Your task to perform on an android device: Open display settings Image 0: 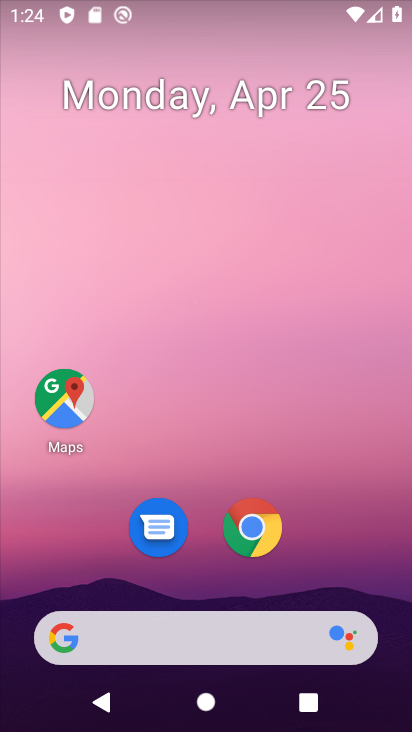
Step 0: drag from (379, 589) to (278, 128)
Your task to perform on an android device: Open display settings Image 1: 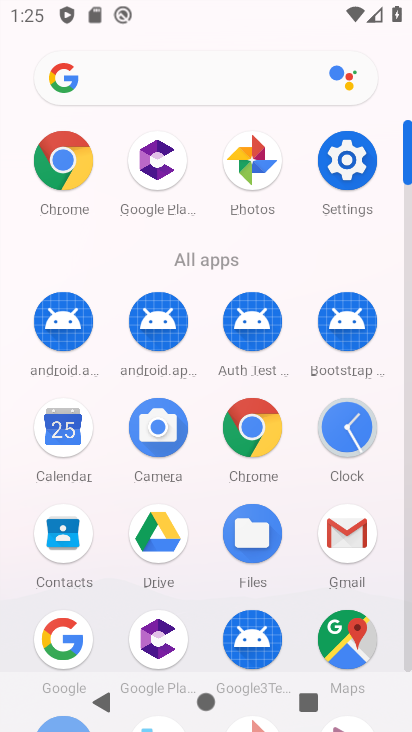
Step 1: click (335, 172)
Your task to perform on an android device: Open display settings Image 2: 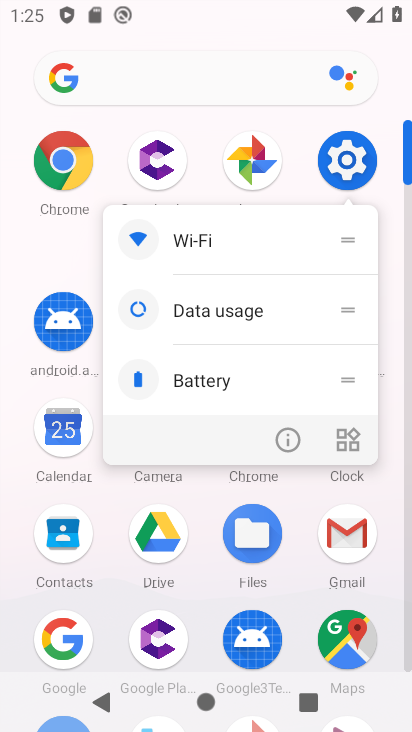
Step 2: click (335, 172)
Your task to perform on an android device: Open display settings Image 3: 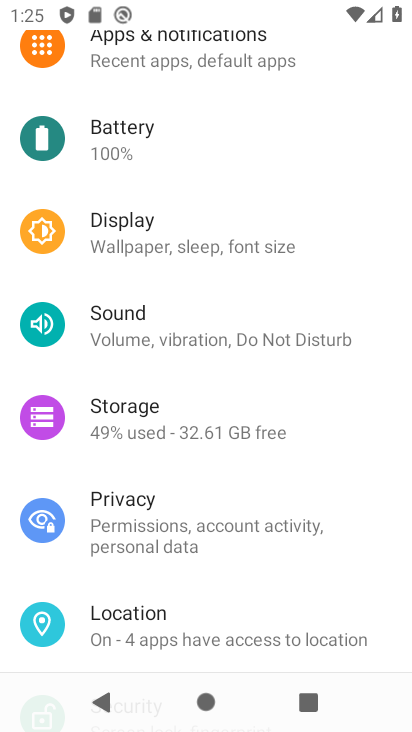
Step 3: click (145, 245)
Your task to perform on an android device: Open display settings Image 4: 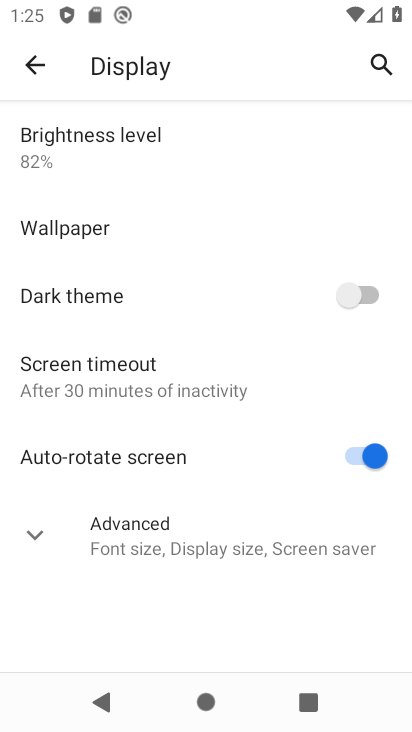
Step 4: task complete